Your task to perform on an android device: What's the weather? Image 0: 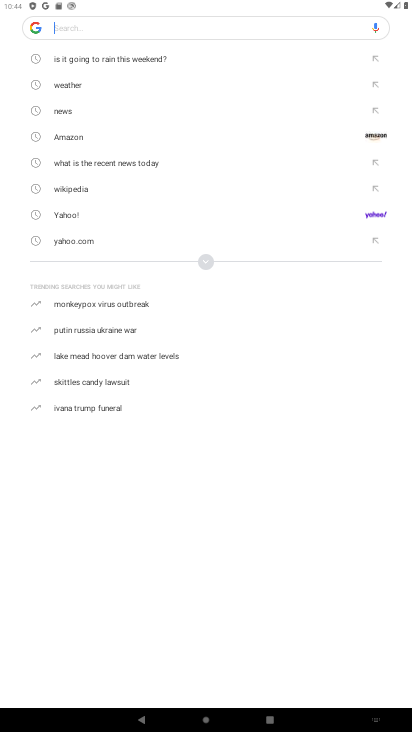
Step 0: type "what's the weather"
Your task to perform on an android device: What's the weather? Image 1: 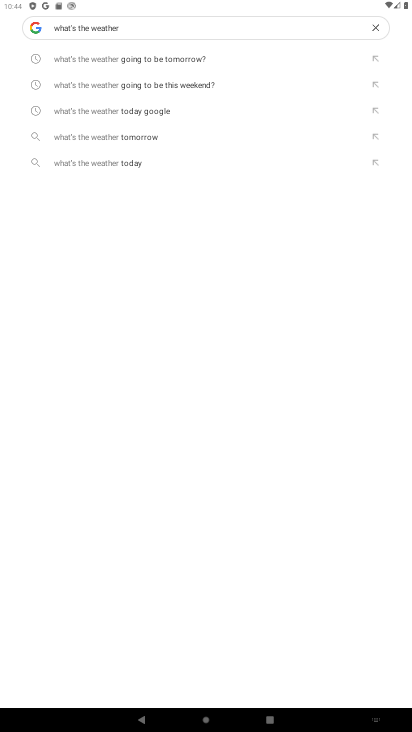
Step 1: click (85, 170)
Your task to perform on an android device: What's the weather? Image 2: 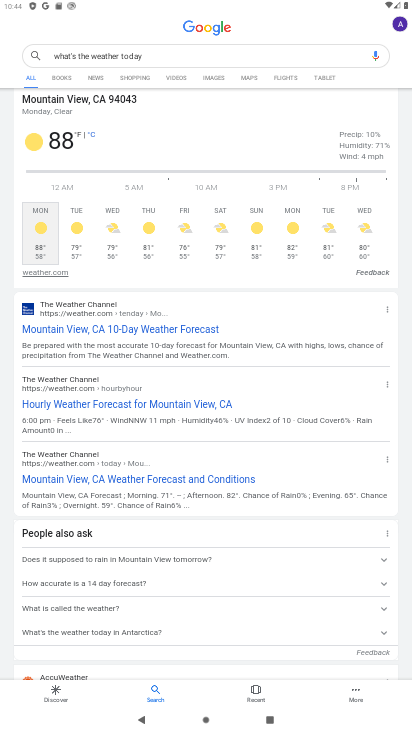
Step 2: task complete